Your task to perform on an android device: Open accessibility settings Image 0: 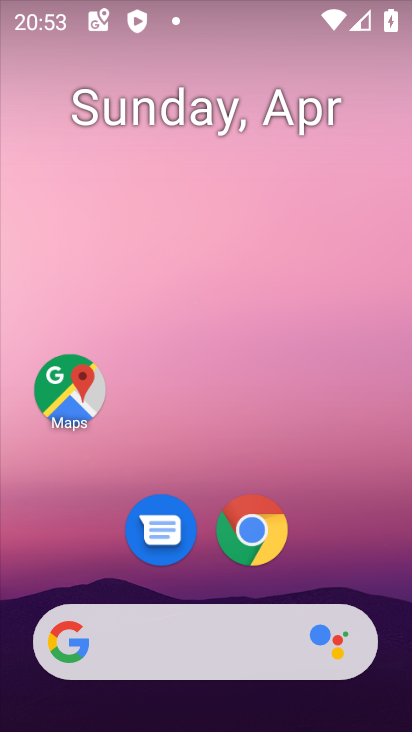
Step 0: drag from (211, 375) to (236, 56)
Your task to perform on an android device: Open accessibility settings Image 1: 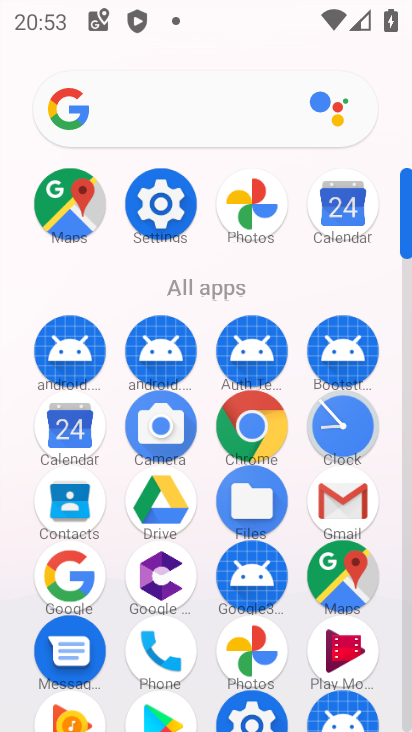
Step 1: click (142, 224)
Your task to perform on an android device: Open accessibility settings Image 2: 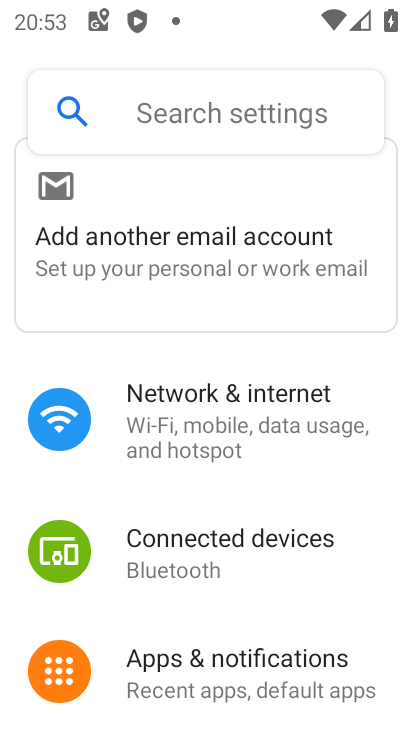
Step 2: drag from (191, 604) to (285, 94)
Your task to perform on an android device: Open accessibility settings Image 3: 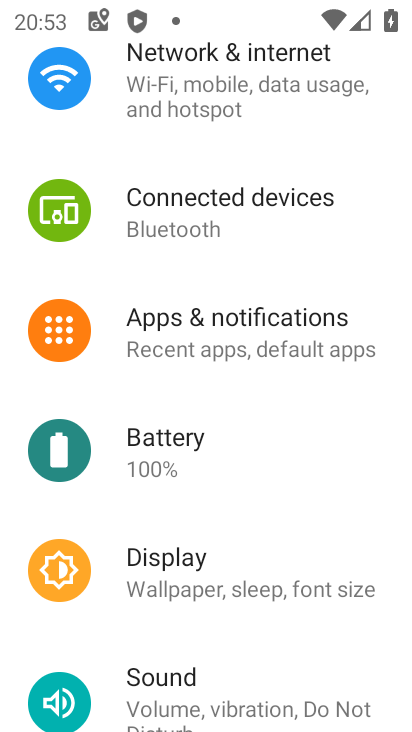
Step 3: drag from (194, 528) to (267, 18)
Your task to perform on an android device: Open accessibility settings Image 4: 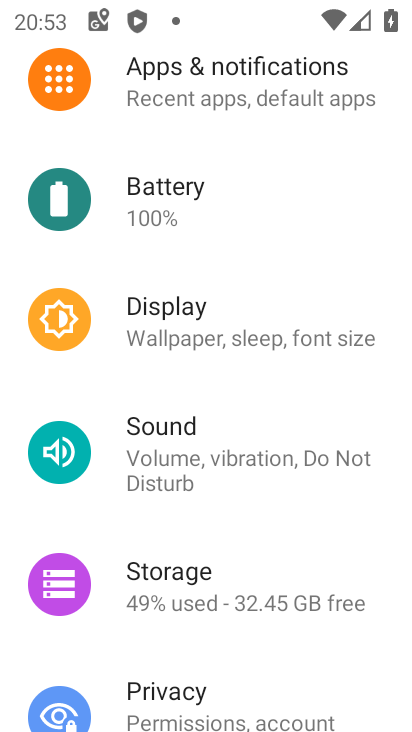
Step 4: drag from (194, 627) to (260, 68)
Your task to perform on an android device: Open accessibility settings Image 5: 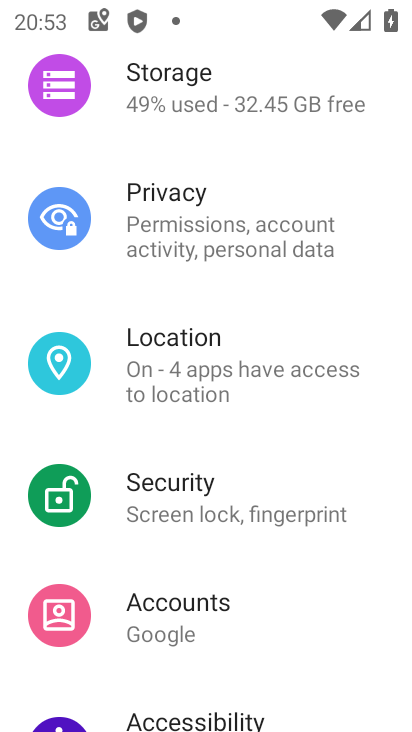
Step 5: click (209, 724)
Your task to perform on an android device: Open accessibility settings Image 6: 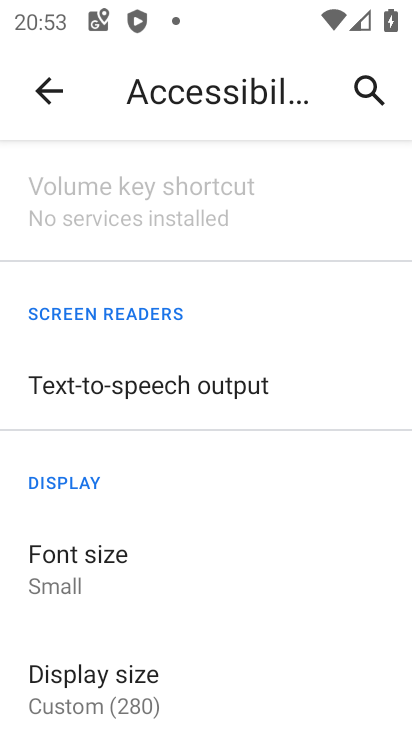
Step 6: task complete